Your task to perform on an android device: delete browsing data in the chrome app Image 0: 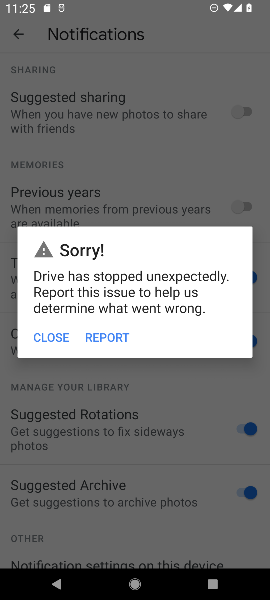
Step 0: click (34, 341)
Your task to perform on an android device: delete browsing data in the chrome app Image 1: 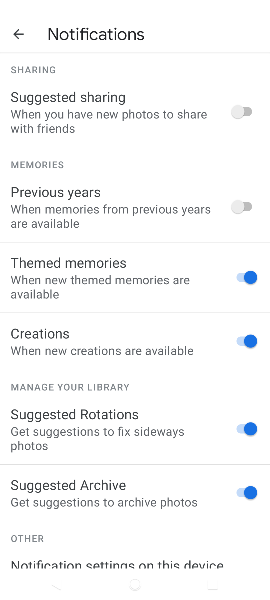
Step 1: press back button
Your task to perform on an android device: delete browsing data in the chrome app Image 2: 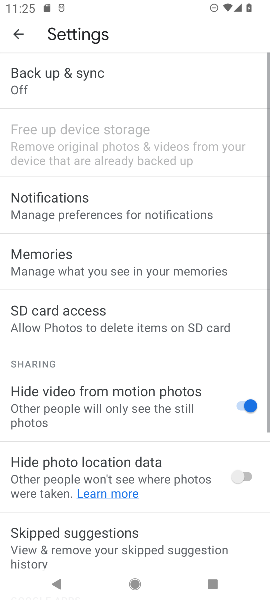
Step 2: click (12, 32)
Your task to perform on an android device: delete browsing data in the chrome app Image 3: 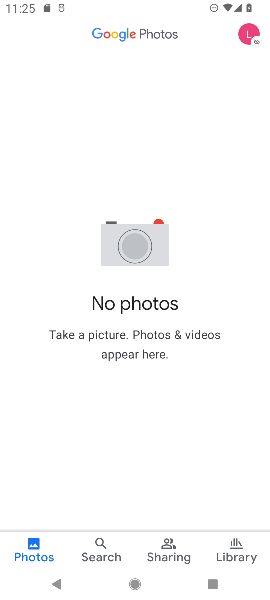
Step 3: press back button
Your task to perform on an android device: delete browsing data in the chrome app Image 4: 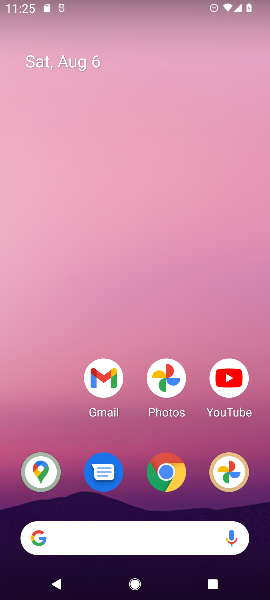
Step 4: drag from (173, 517) to (131, 170)
Your task to perform on an android device: delete browsing data in the chrome app Image 5: 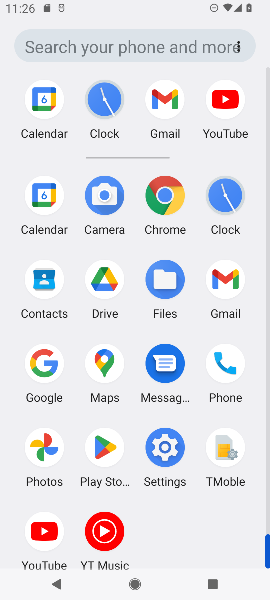
Step 5: click (163, 192)
Your task to perform on an android device: delete browsing data in the chrome app Image 6: 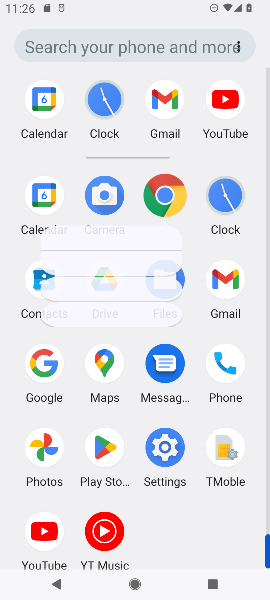
Step 6: click (163, 192)
Your task to perform on an android device: delete browsing data in the chrome app Image 7: 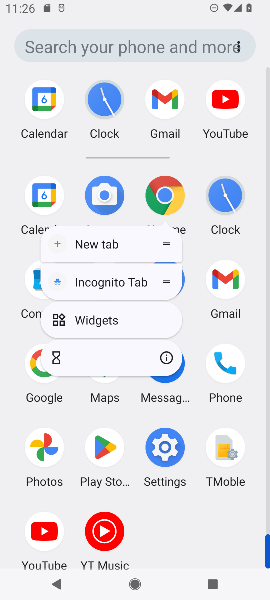
Step 7: click (163, 193)
Your task to perform on an android device: delete browsing data in the chrome app Image 8: 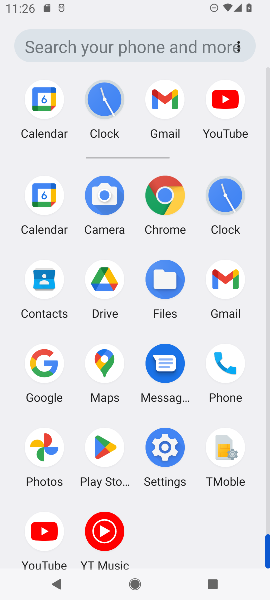
Step 8: click (163, 193)
Your task to perform on an android device: delete browsing data in the chrome app Image 9: 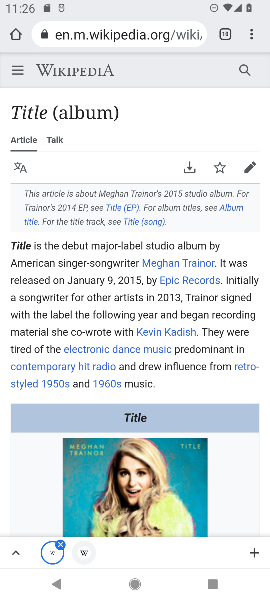
Step 9: drag from (250, 40) to (153, 187)
Your task to perform on an android device: delete browsing data in the chrome app Image 10: 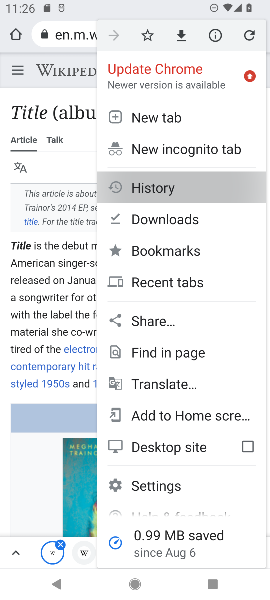
Step 10: click (153, 187)
Your task to perform on an android device: delete browsing data in the chrome app Image 11: 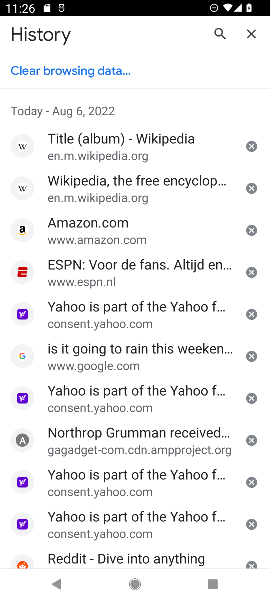
Step 11: click (80, 74)
Your task to perform on an android device: delete browsing data in the chrome app Image 12: 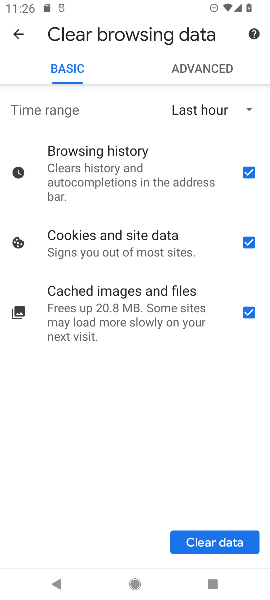
Step 12: click (239, 537)
Your task to perform on an android device: delete browsing data in the chrome app Image 13: 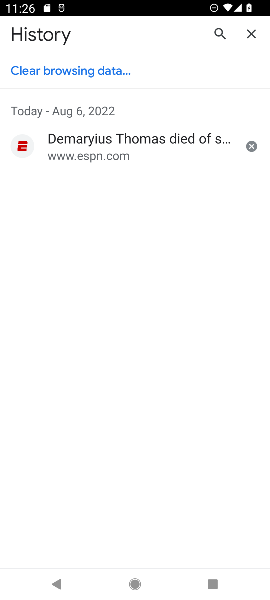
Step 13: task complete